Your task to perform on an android device: Go to Maps Image 0: 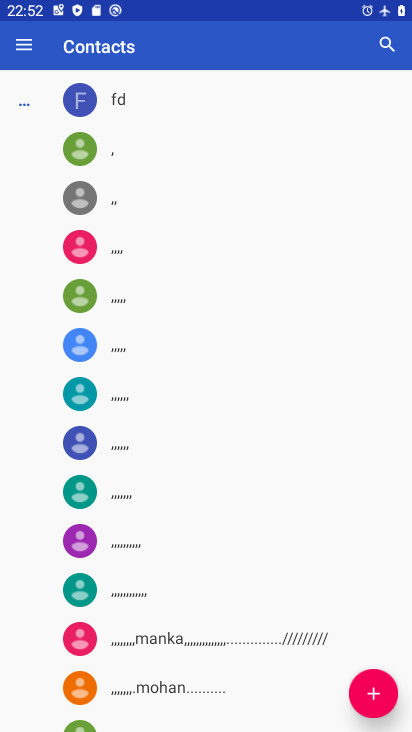
Step 0: press home button
Your task to perform on an android device: Go to Maps Image 1: 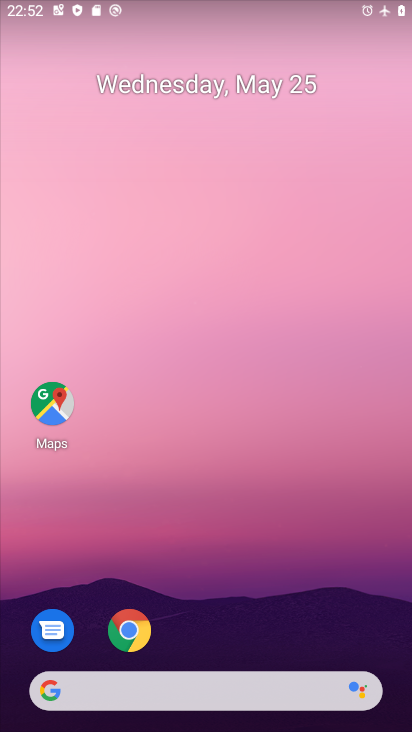
Step 1: click (51, 411)
Your task to perform on an android device: Go to Maps Image 2: 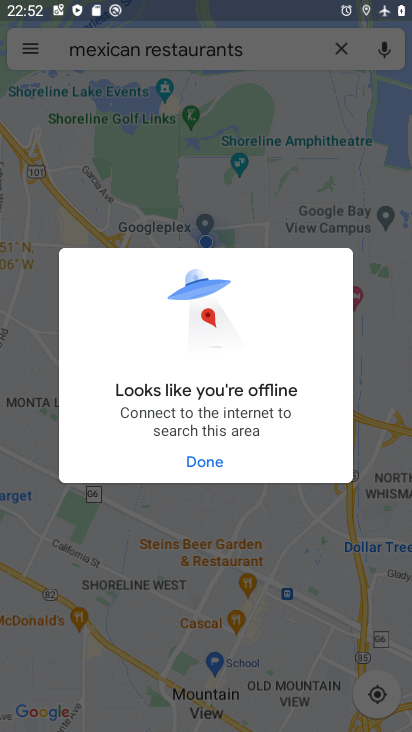
Step 2: task complete